Your task to perform on an android device: star an email in the gmail app Image 0: 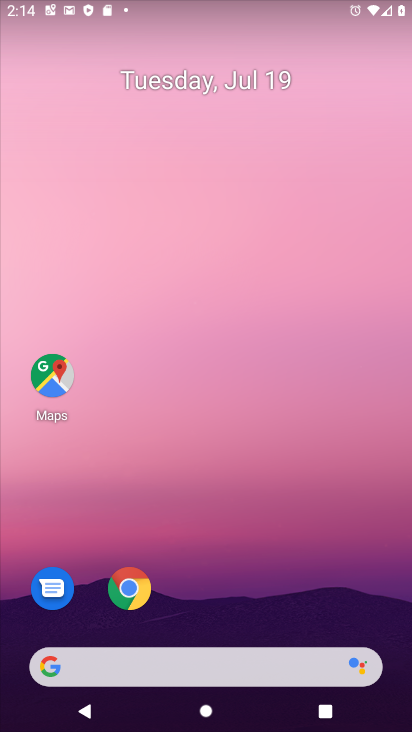
Step 0: drag from (330, 625) to (242, 274)
Your task to perform on an android device: star an email in the gmail app Image 1: 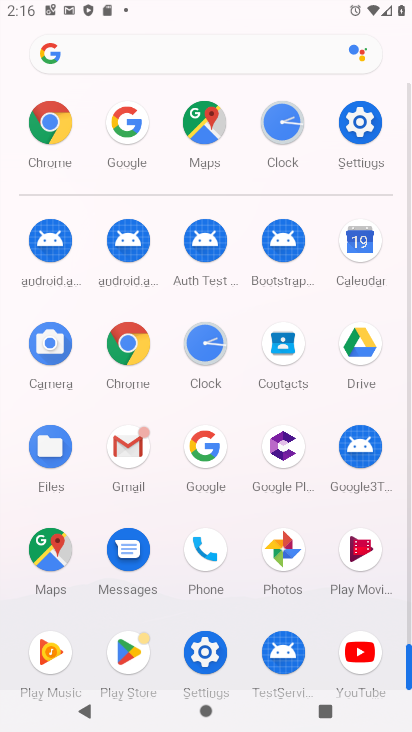
Step 1: click (141, 442)
Your task to perform on an android device: star an email in the gmail app Image 2: 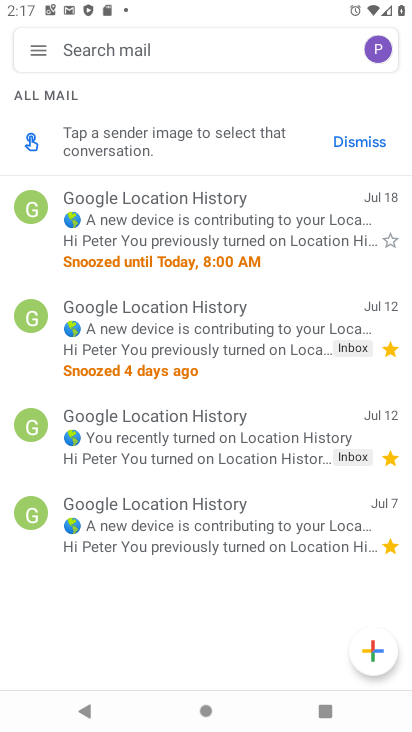
Step 2: click (391, 241)
Your task to perform on an android device: star an email in the gmail app Image 3: 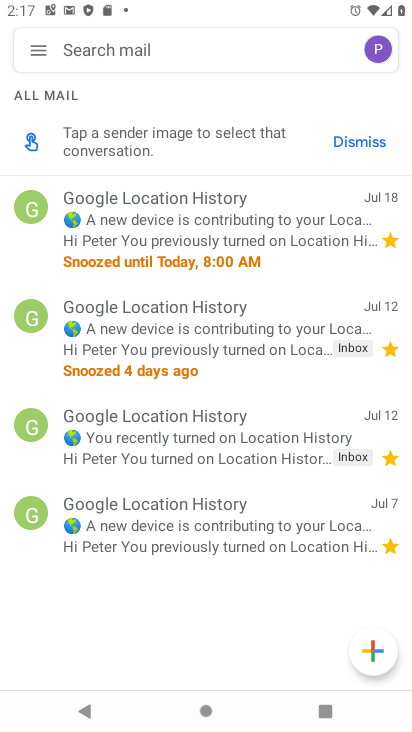
Step 3: task complete